Your task to perform on an android device: see creations saved in the google photos Image 0: 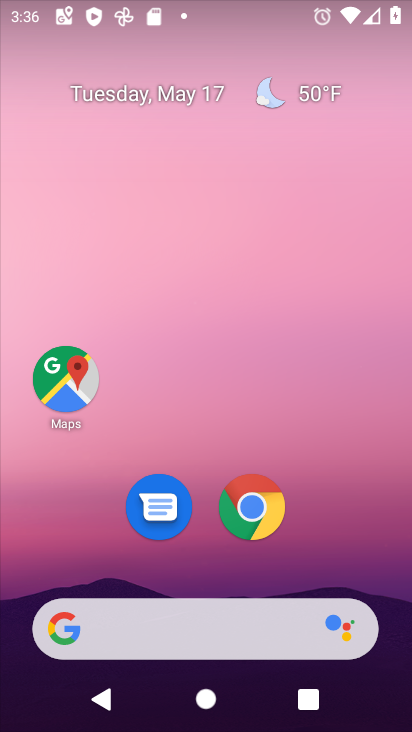
Step 0: drag from (210, 575) to (136, 42)
Your task to perform on an android device: see creations saved in the google photos Image 1: 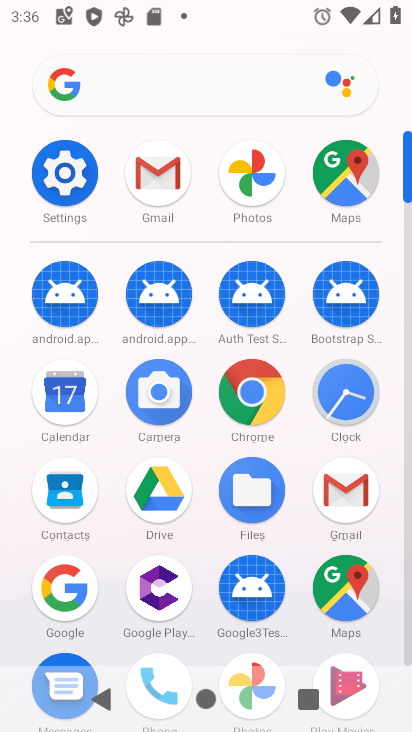
Step 1: drag from (221, 628) to (173, 276)
Your task to perform on an android device: see creations saved in the google photos Image 2: 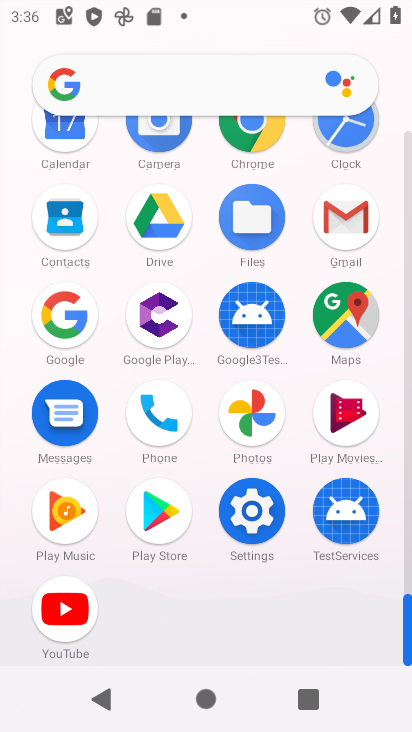
Step 2: click (248, 420)
Your task to perform on an android device: see creations saved in the google photos Image 3: 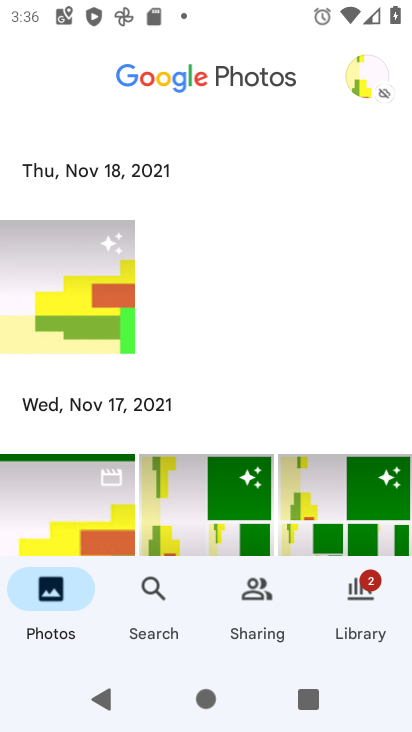
Step 3: click (151, 597)
Your task to perform on an android device: see creations saved in the google photos Image 4: 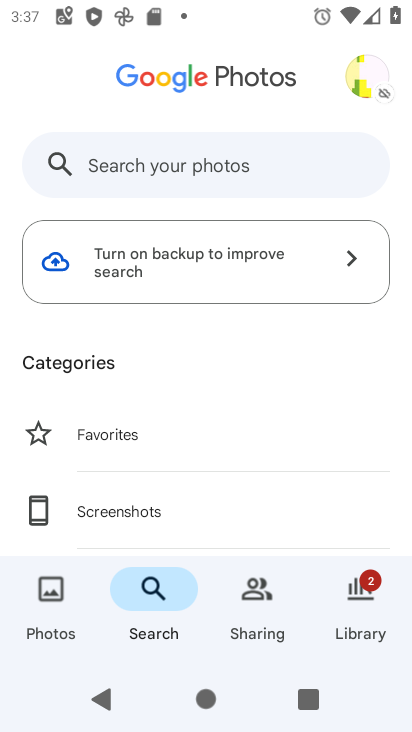
Step 4: click (180, 152)
Your task to perform on an android device: see creations saved in the google photos Image 5: 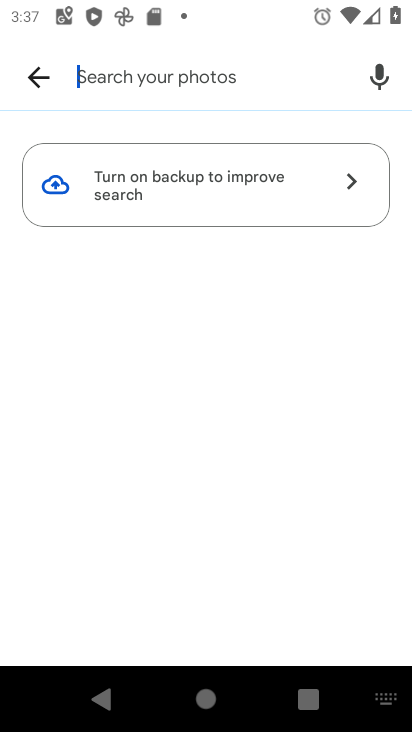
Step 5: type "creations"
Your task to perform on an android device: see creations saved in the google photos Image 6: 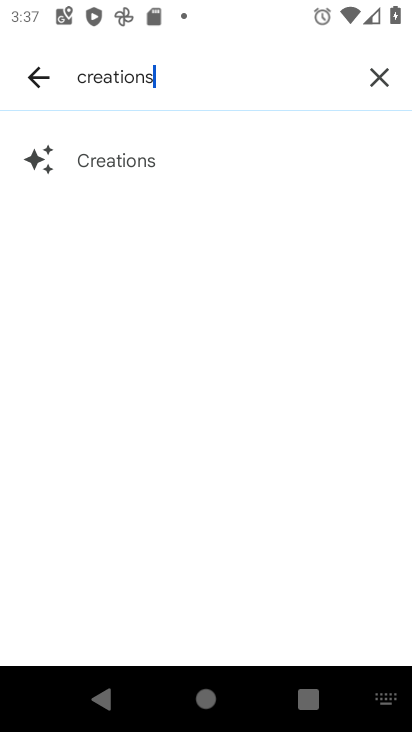
Step 6: click (157, 167)
Your task to perform on an android device: see creations saved in the google photos Image 7: 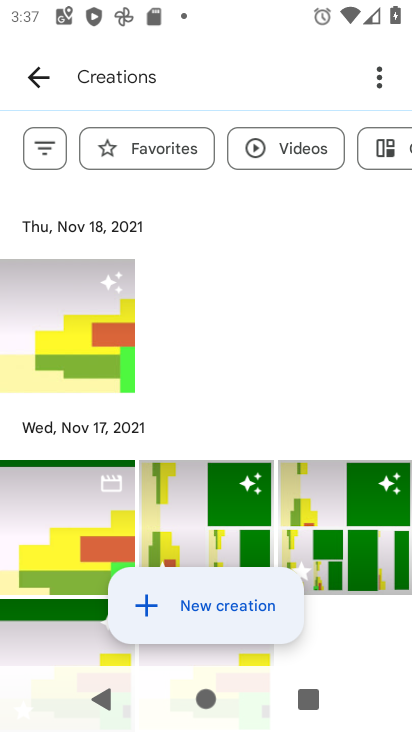
Step 7: task complete